Your task to perform on an android device: turn pop-ups off in chrome Image 0: 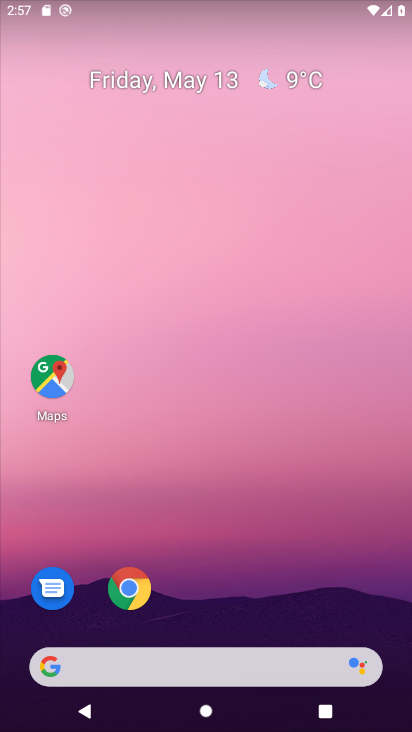
Step 0: click (127, 596)
Your task to perform on an android device: turn pop-ups off in chrome Image 1: 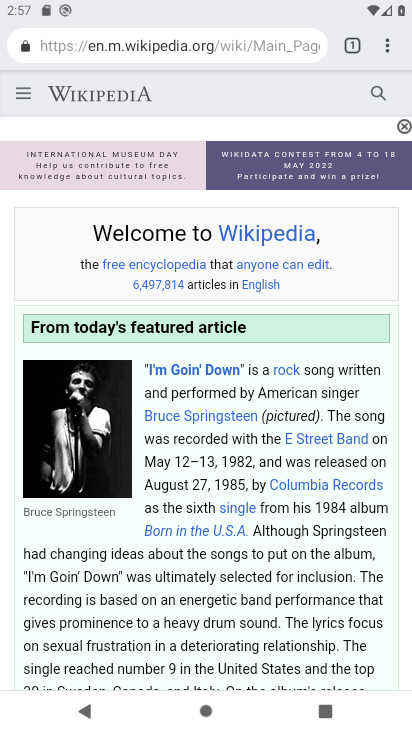
Step 1: click (391, 51)
Your task to perform on an android device: turn pop-ups off in chrome Image 2: 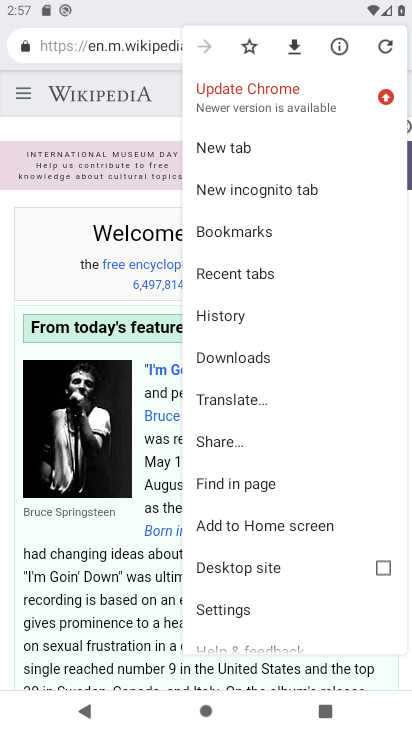
Step 2: click (254, 610)
Your task to perform on an android device: turn pop-ups off in chrome Image 3: 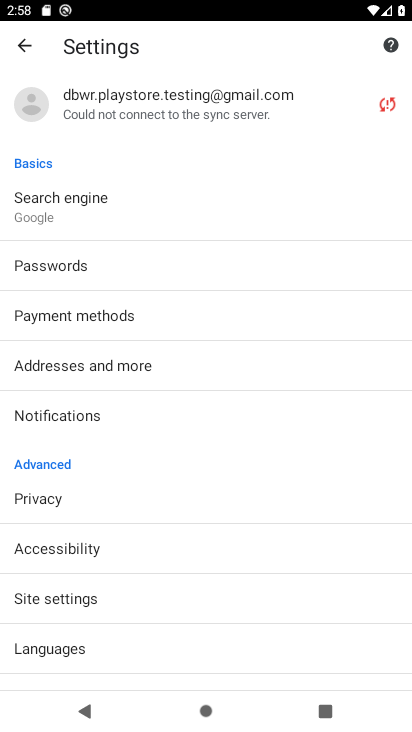
Step 3: click (94, 596)
Your task to perform on an android device: turn pop-ups off in chrome Image 4: 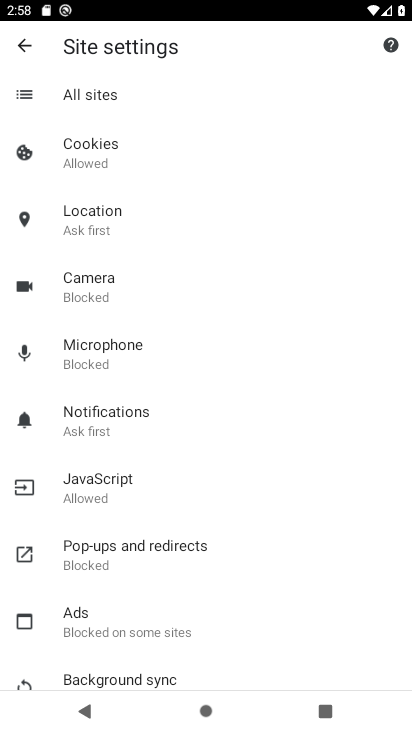
Step 4: click (154, 553)
Your task to perform on an android device: turn pop-ups off in chrome Image 5: 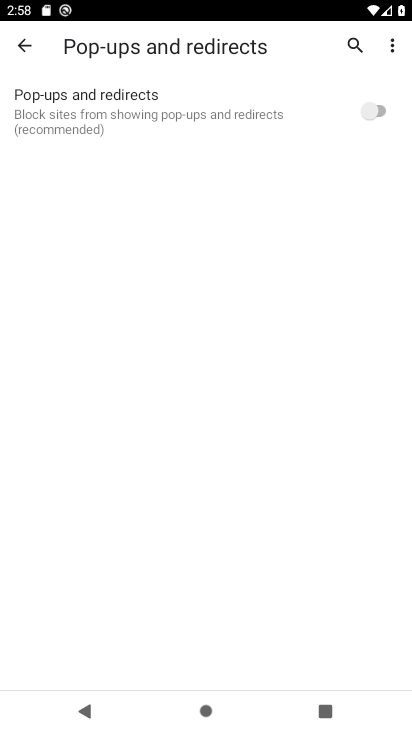
Step 5: task complete